Your task to perform on an android device: turn off wifi Image 0: 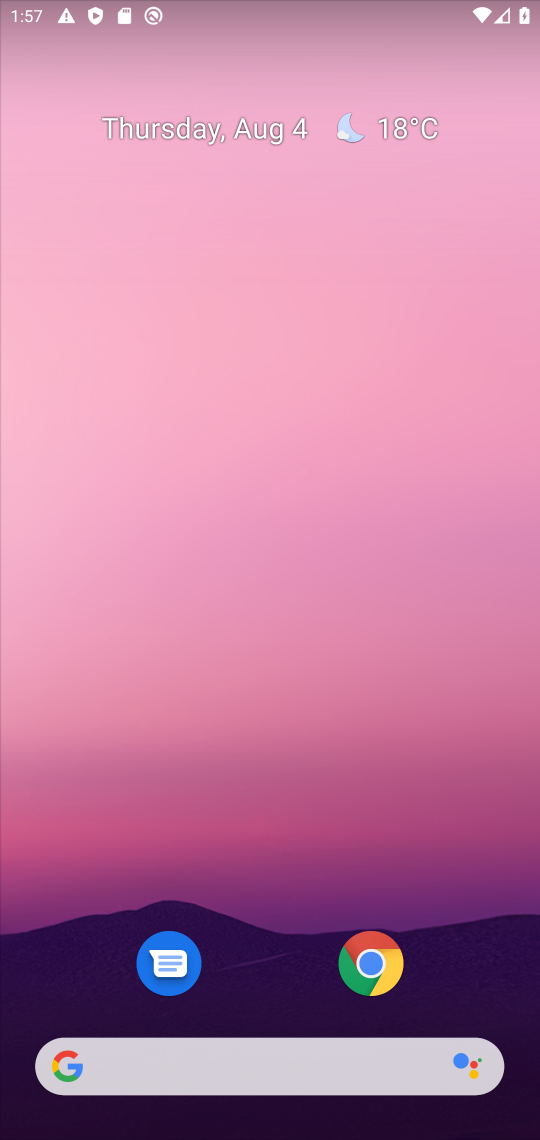
Step 0: drag from (280, 1033) to (199, 327)
Your task to perform on an android device: turn off wifi Image 1: 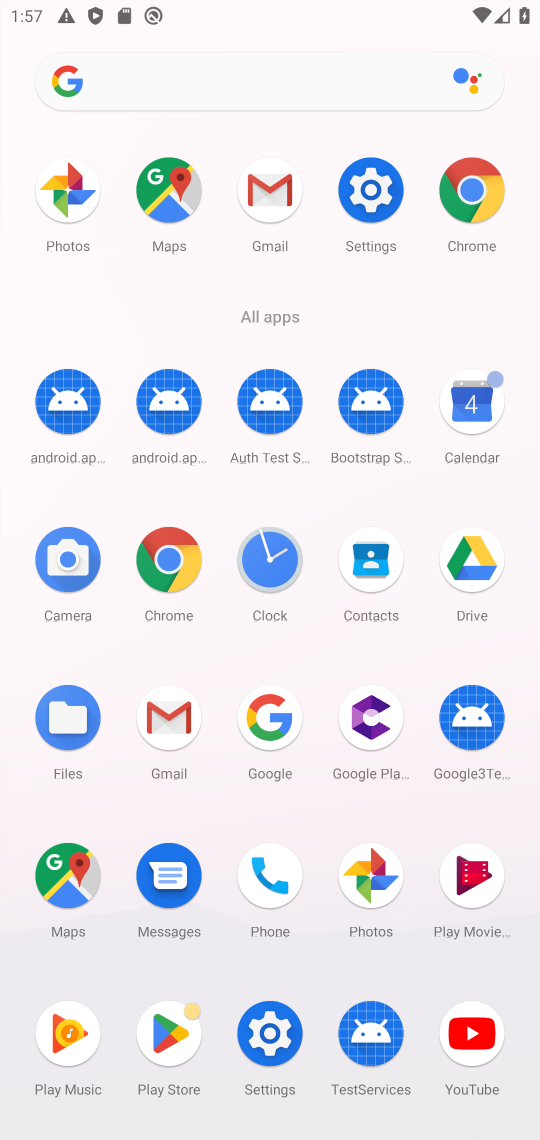
Step 1: click (383, 185)
Your task to perform on an android device: turn off wifi Image 2: 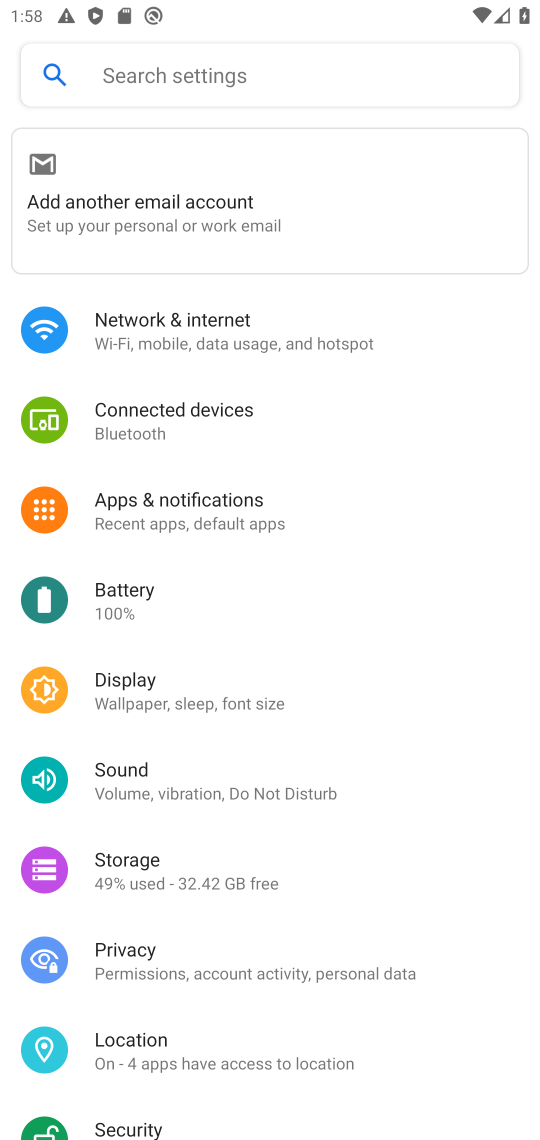
Step 2: click (217, 340)
Your task to perform on an android device: turn off wifi Image 3: 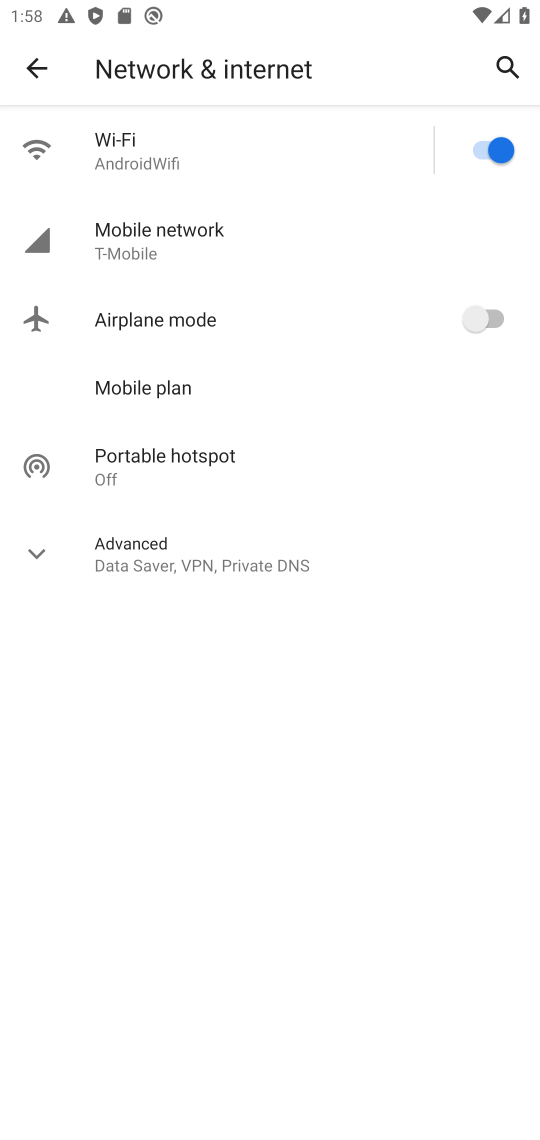
Step 3: click (490, 164)
Your task to perform on an android device: turn off wifi Image 4: 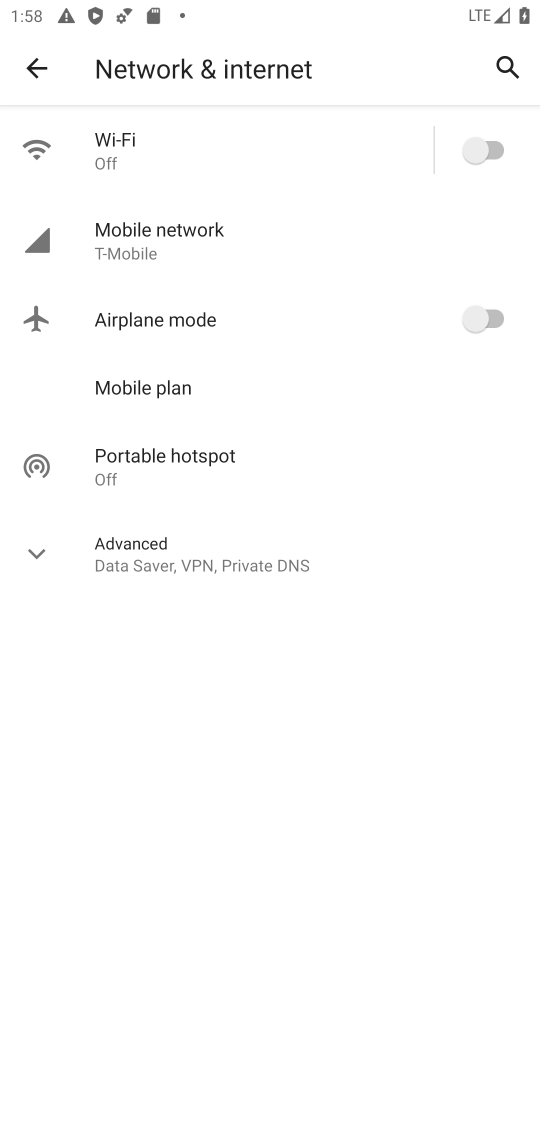
Step 4: task complete